Your task to perform on an android device: open wifi settings Image 0: 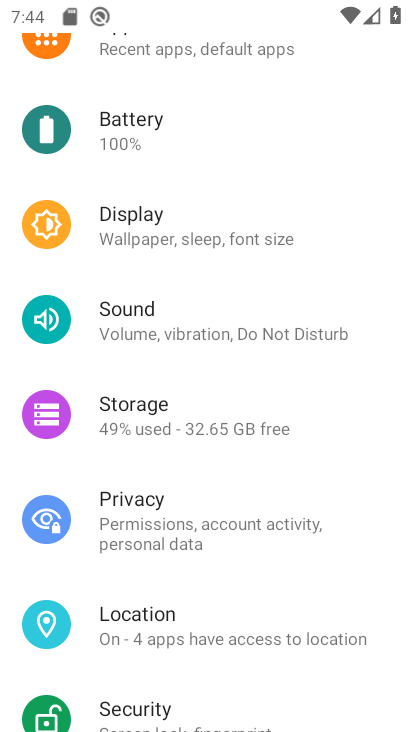
Step 0: drag from (273, 147) to (313, 588)
Your task to perform on an android device: open wifi settings Image 1: 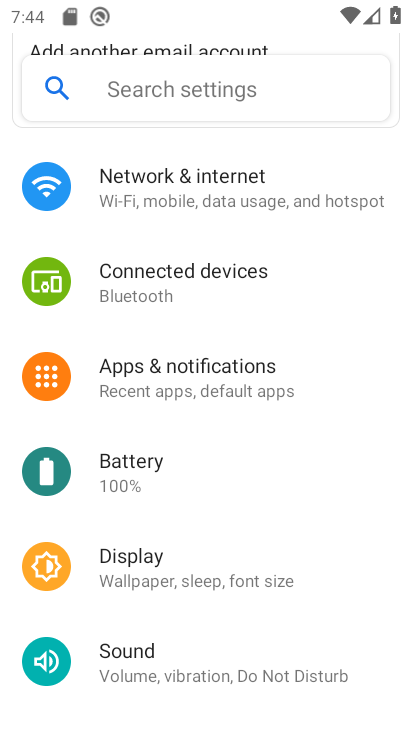
Step 1: drag from (266, 170) to (298, 553)
Your task to perform on an android device: open wifi settings Image 2: 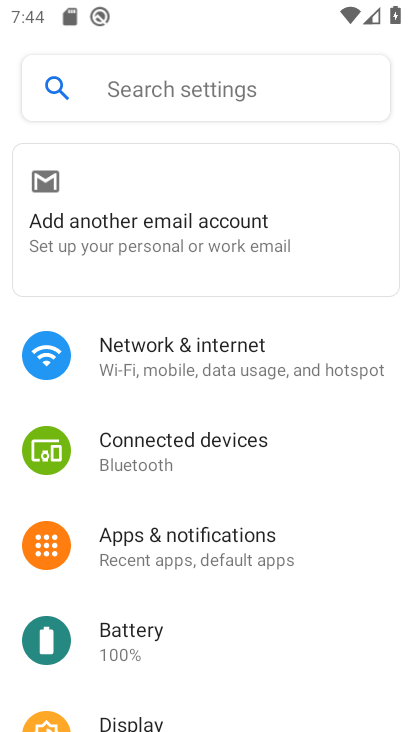
Step 2: click (184, 344)
Your task to perform on an android device: open wifi settings Image 3: 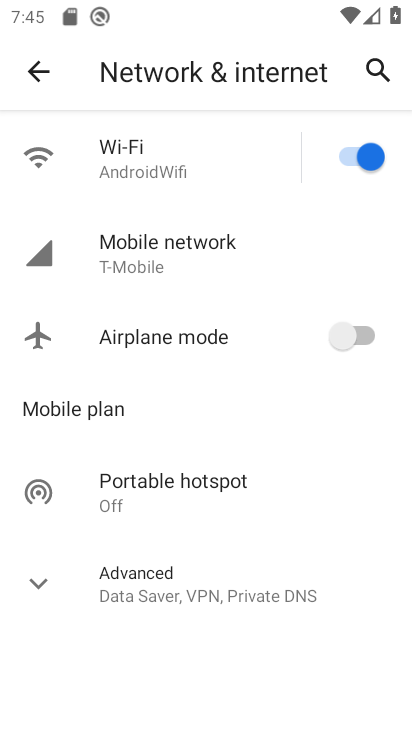
Step 3: click (128, 166)
Your task to perform on an android device: open wifi settings Image 4: 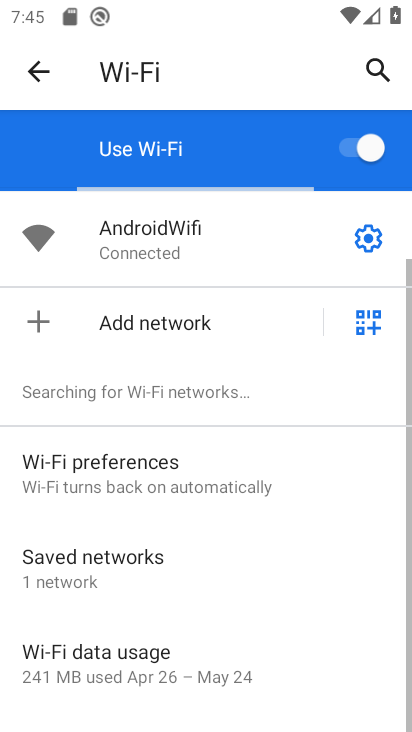
Step 4: task complete